Your task to perform on an android device: Go to Yahoo.com Image 0: 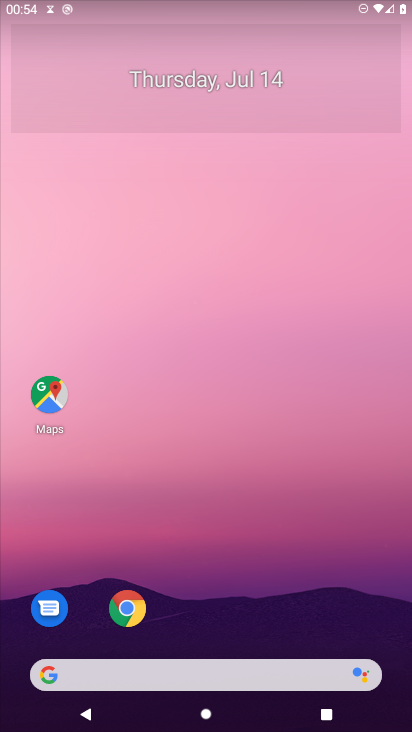
Step 0: click (41, 682)
Your task to perform on an android device: Go to Yahoo.com Image 1: 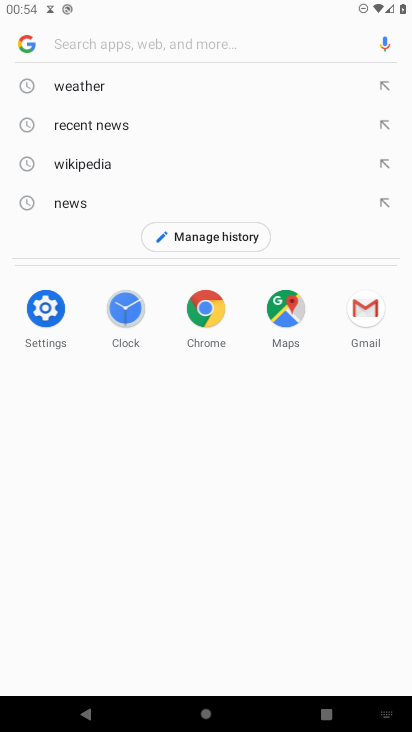
Step 1: type " Yahoo.com"
Your task to perform on an android device: Go to Yahoo.com Image 2: 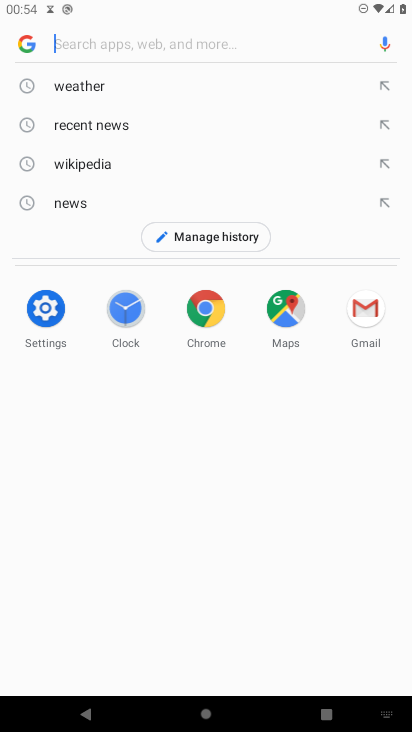
Step 2: click (62, 38)
Your task to perform on an android device: Go to Yahoo.com Image 3: 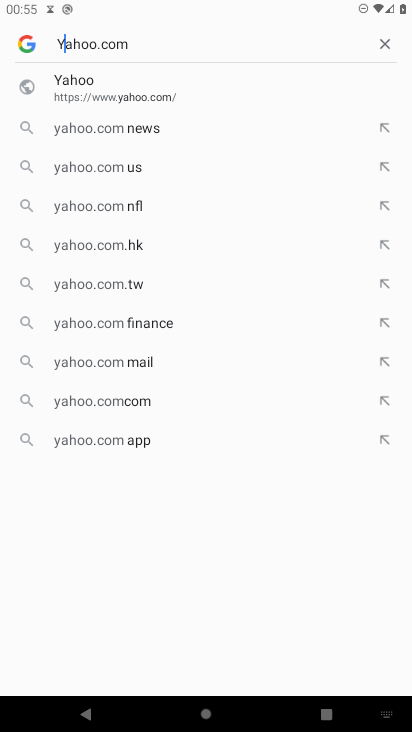
Step 3: press enter
Your task to perform on an android device: Go to Yahoo.com Image 4: 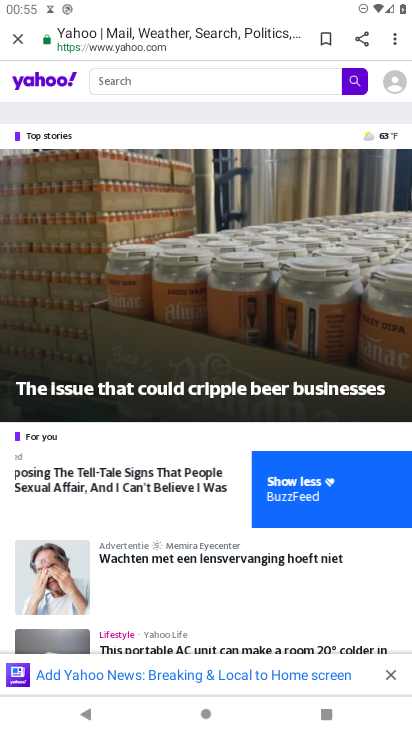
Step 4: task complete